Your task to perform on an android device: allow notifications from all sites in the chrome app Image 0: 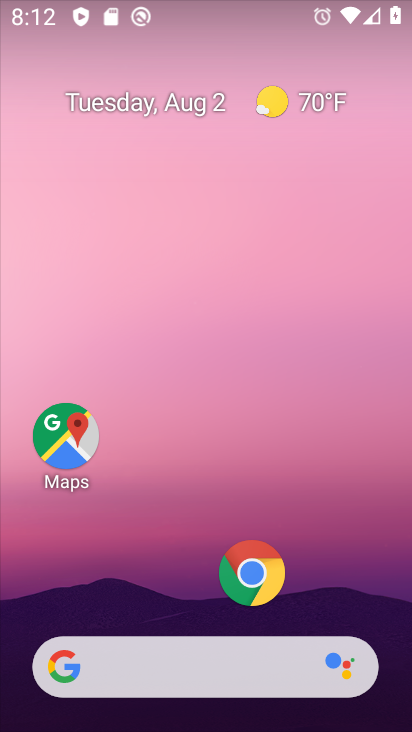
Step 0: press home button
Your task to perform on an android device: allow notifications from all sites in the chrome app Image 1: 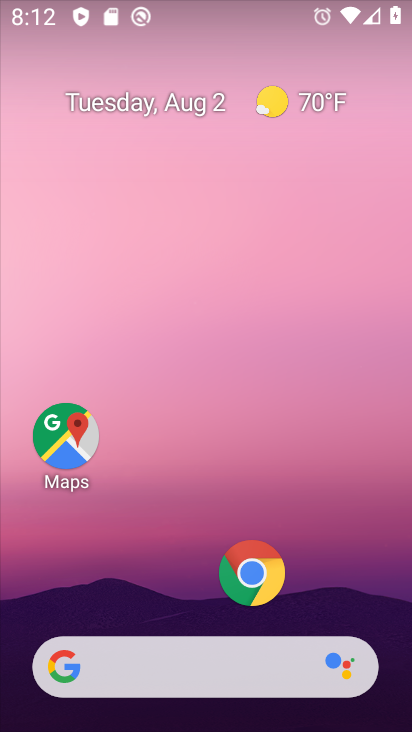
Step 1: click (248, 565)
Your task to perform on an android device: allow notifications from all sites in the chrome app Image 2: 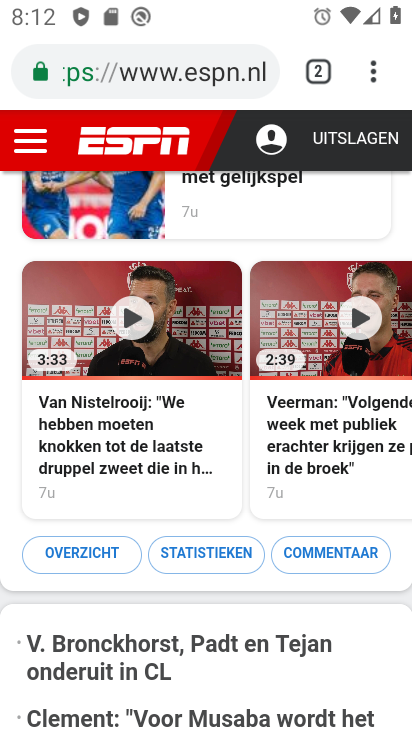
Step 2: click (372, 63)
Your task to perform on an android device: allow notifications from all sites in the chrome app Image 3: 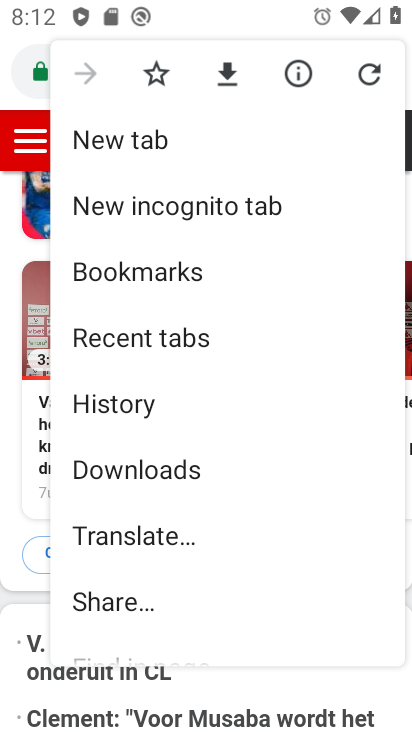
Step 3: drag from (194, 593) to (191, 311)
Your task to perform on an android device: allow notifications from all sites in the chrome app Image 4: 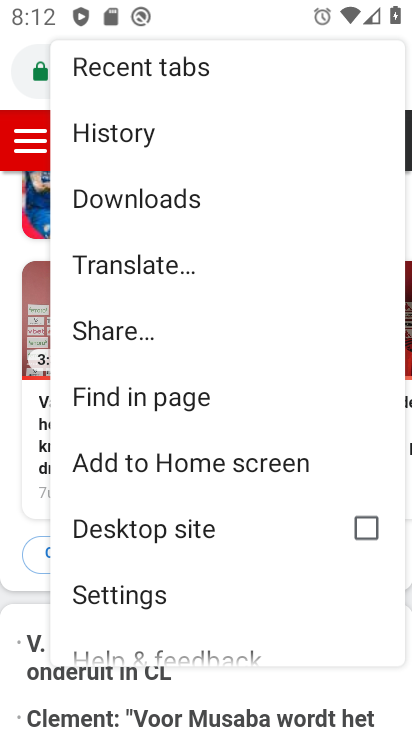
Step 4: click (175, 589)
Your task to perform on an android device: allow notifications from all sites in the chrome app Image 5: 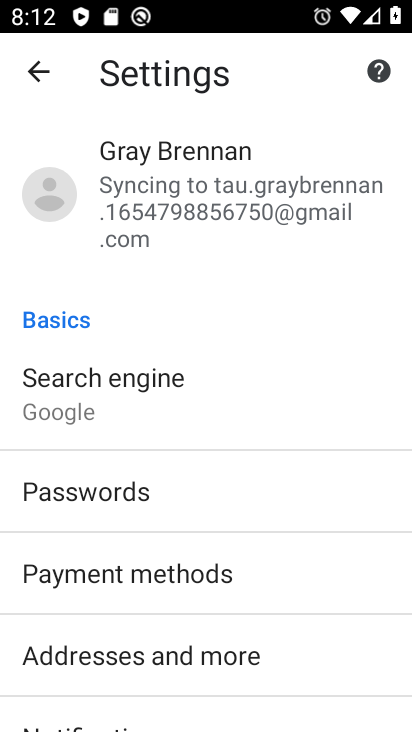
Step 5: drag from (241, 665) to (224, 248)
Your task to perform on an android device: allow notifications from all sites in the chrome app Image 6: 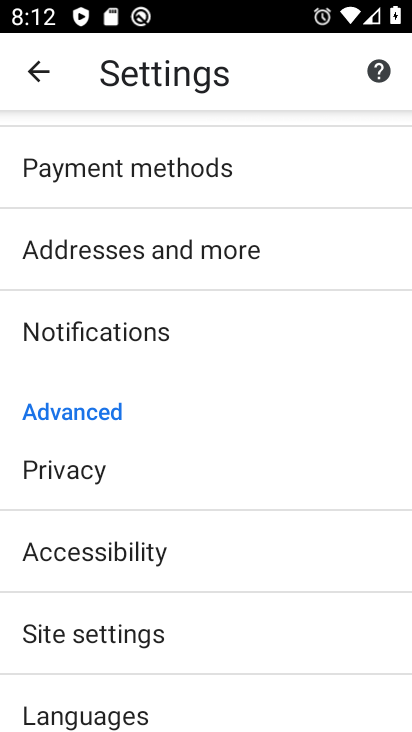
Step 6: click (182, 635)
Your task to perform on an android device: allow notifications from all sites in the chrome app Image 7: 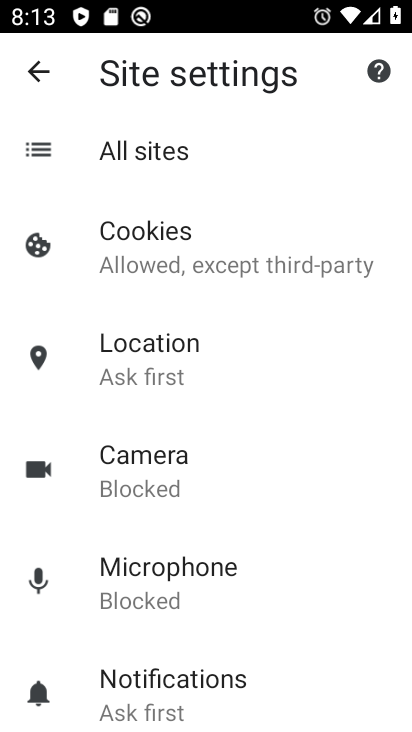
Step 7: click (78, 144)
Your task to perform on an android device: allow notifications from all sites in the chrome app Image 8: 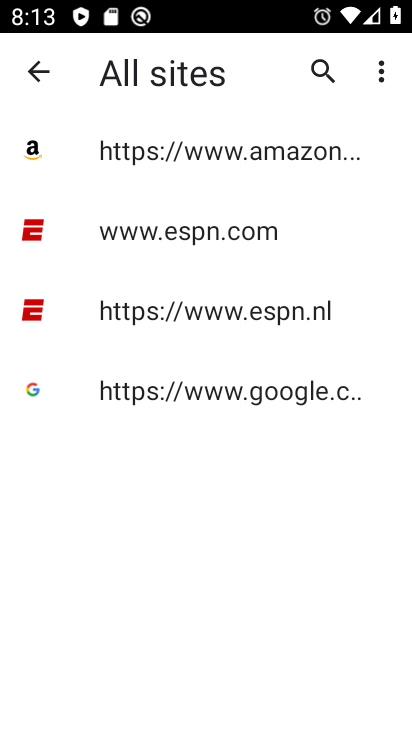
Step 8: click (86, 158)
Your task to perform on an android device: allow notifications from all sites in the chrome app Image 9: 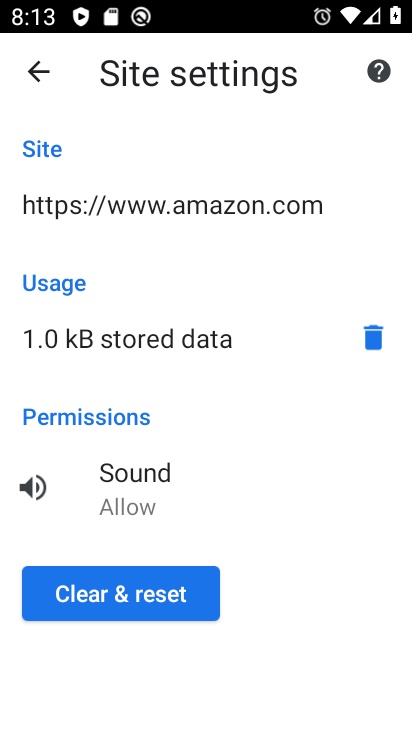
Step 9: click (41, 83)
Your task to perform on an android device: allow notifications from all sites in the chrome app Image 10: 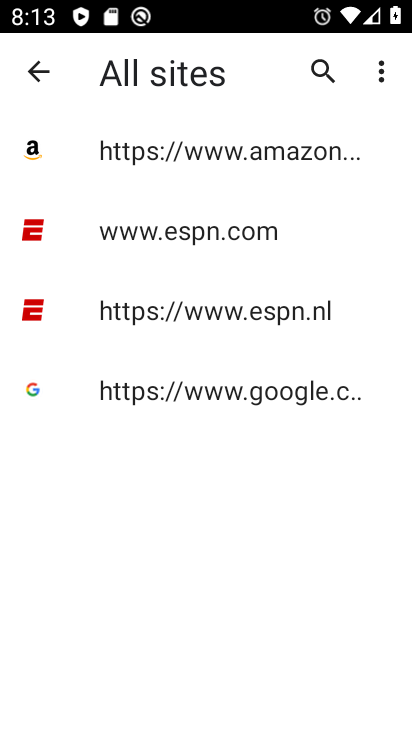
Step 10: click (115, 229)
Your task to perform on an android device: allow notifications from all sites in the chrome app Image 11: 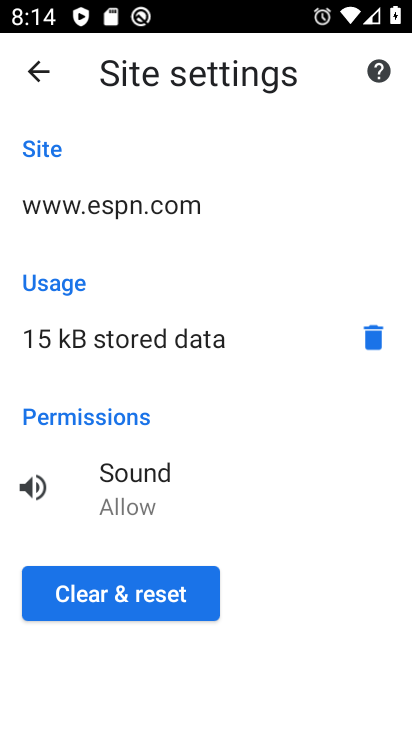
Step 11: click (33, 74)
Your task to perform on an android device: allow notifications from all sites in the chrome app Image 12: 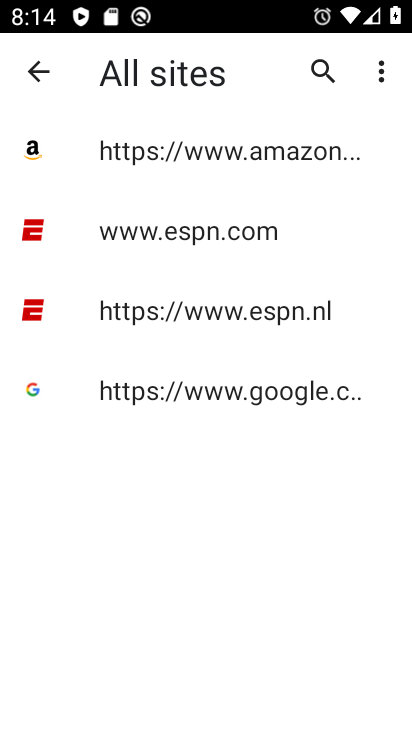
Step 12: click (92, 312)
Your task to perform on an android device: allow notifications from all sites in the chrome app Image 13: 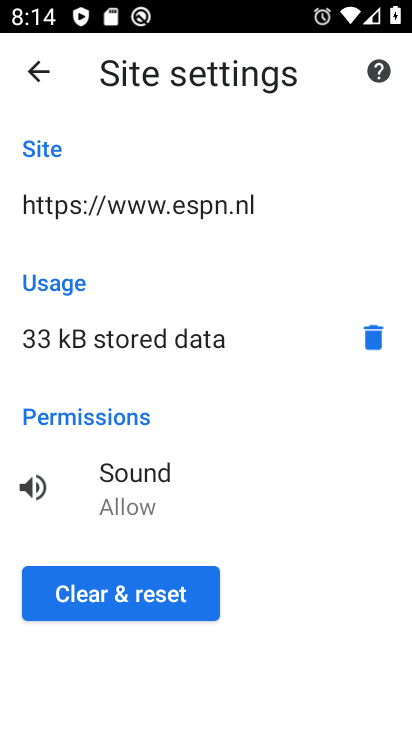
Step 13: click (44, 69)
Your task to perform on an android device: allow notifications from all sites in the chrome app Image 14: 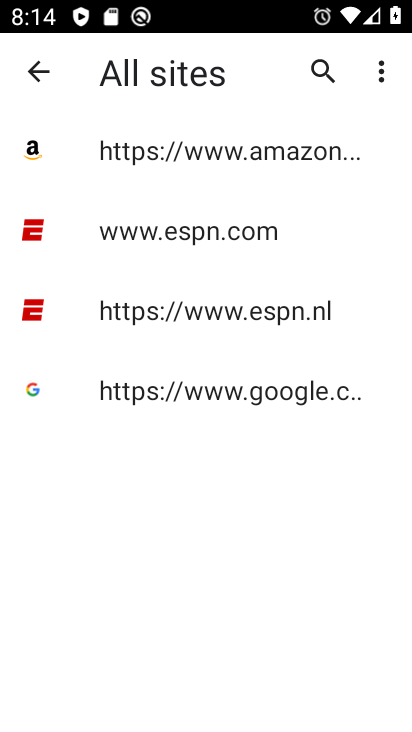
Step 14: click (83, 388)
Your task to perform on an android device: allow notifications from all sites in the chrome app Image 15: 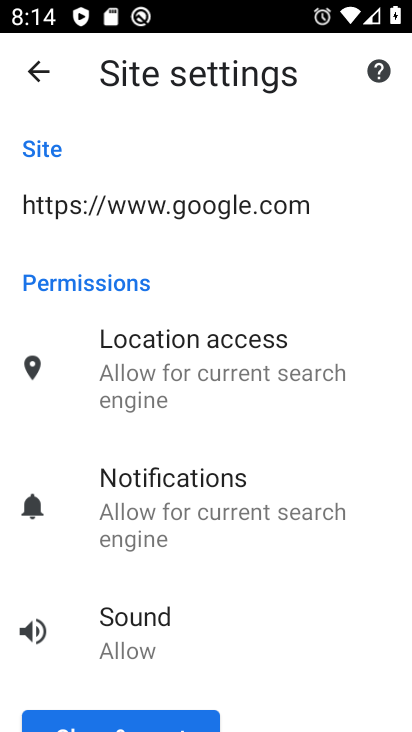
Step 15: task complete